Your task to perform on an android device: turn on data saver in the chrome app Image 0: 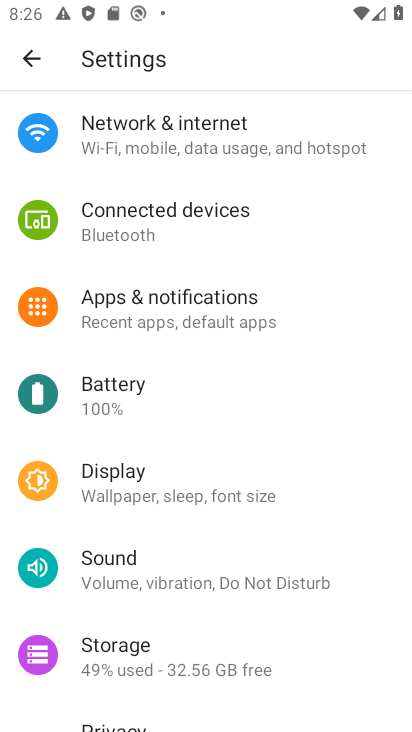
Step 0: press home button
Your task to perform on an android device: turn on data saver in the chrome app Image 1: 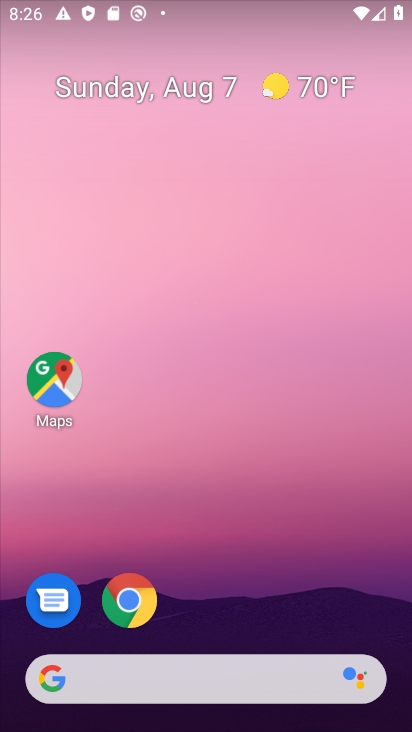
Step 1: click (122, 615)
Your task to perform on an android device: turn on data saver in the chrome app Image 2: 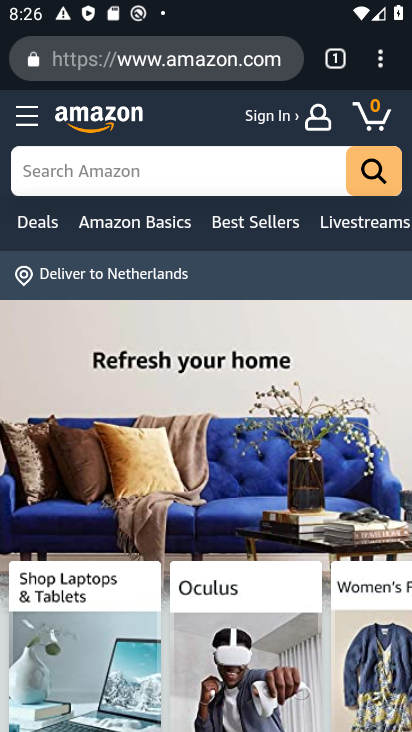
Step 2: click (382, 59)
Your task to perform on an android device: turn on data saver in the chrome app Image 3: 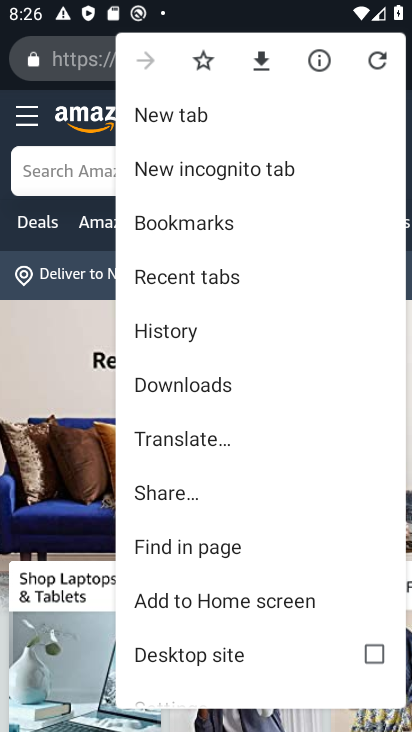
Step 3: click (224, 284)
Your task to perform on an android device: turn on data saver in the chrome app Image 4: 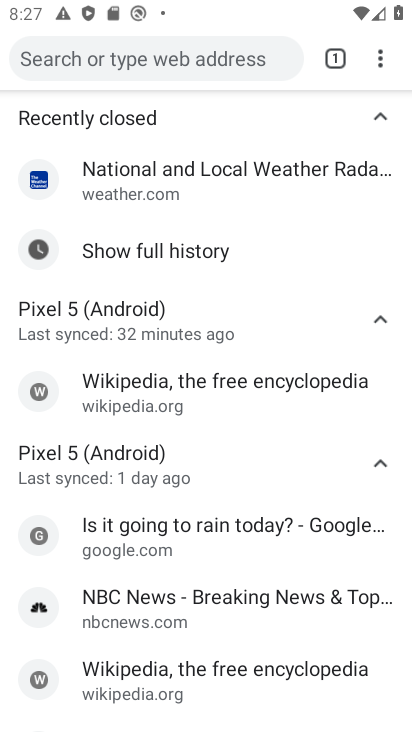
Step 4: click (377, 58)
Your task to perform on an android device: turn on data saver in the chrome app Image 5: 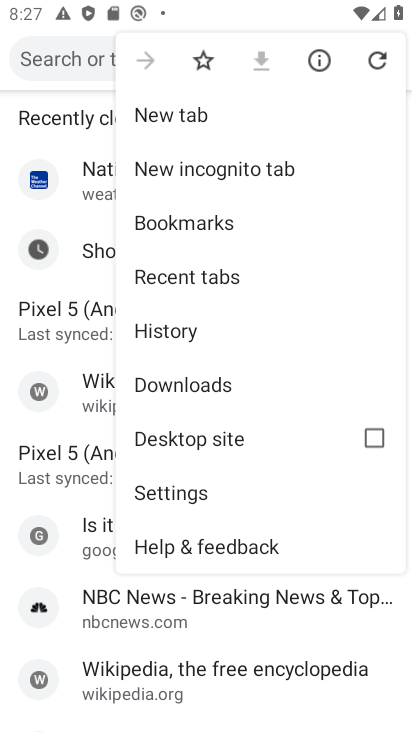
Step 5: click (162, 495)
Your task to perform on an android device: turn on data saver in the chrome app Image 6: 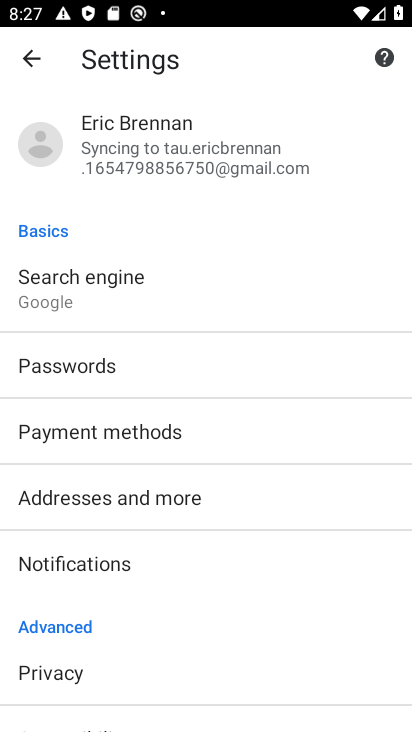
Step 6: drag from (135, 562) to (228, 19)
Your task to perform on an android device: turn on data saver in the chrome app Image 7: 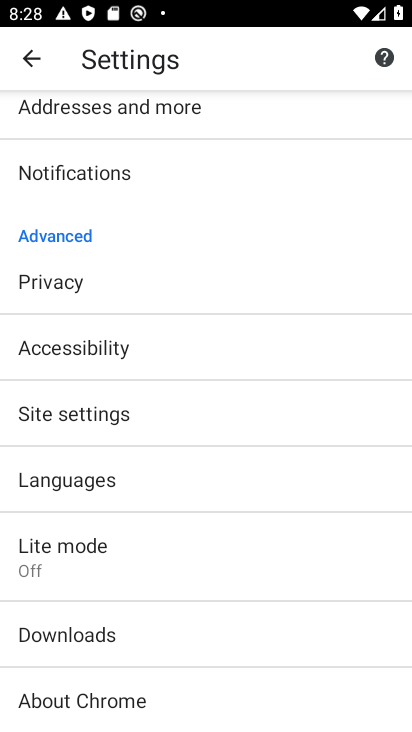
Step 7: drag from (129, 627) to (192, 344)
Your task to perform on an android device: turn on data saver in the chrome app Image 8: 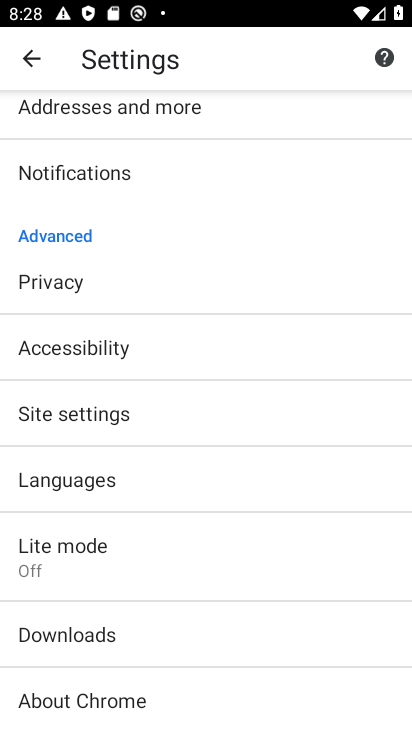
Step 8: click (93, 542)
Your task to perform on an android device: turn on data saver in the chrome app Image 9: 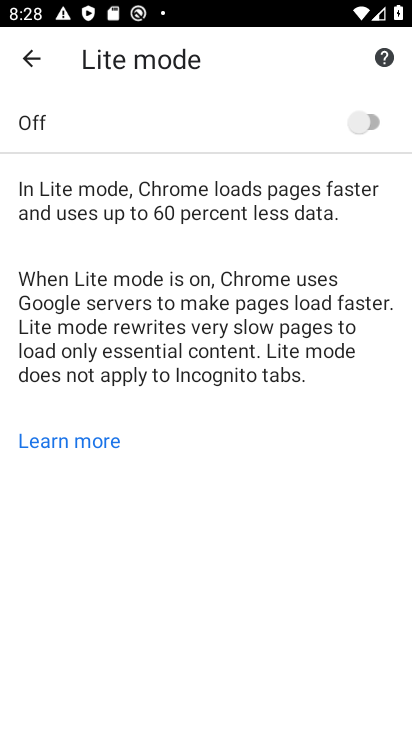
Step 9: click (378, 124)
Your task to perform on an android device: turn on data saver in the chrome app Image 10: 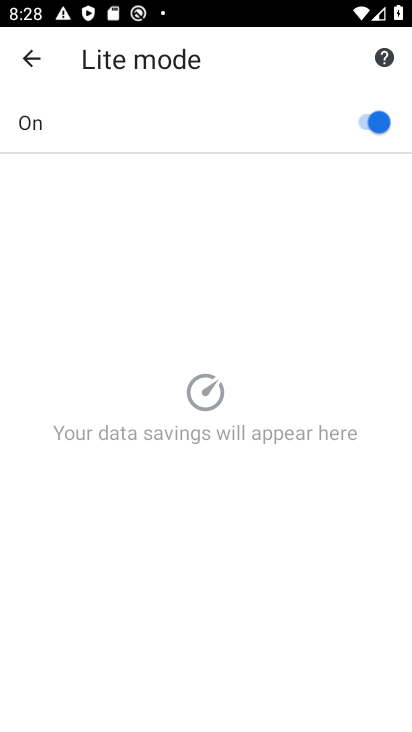
Step 10: task complete